Your task to perform on an android device: turn off priority inbox in the gmail app Image 0: 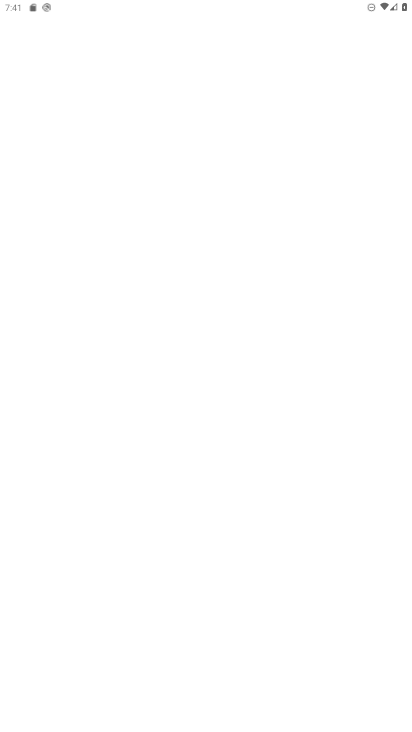
Step 0: drag from (227, 654) to (232, 291)
Your task to perform on an android device: turn off priority inbox in the gmail app Image 1: 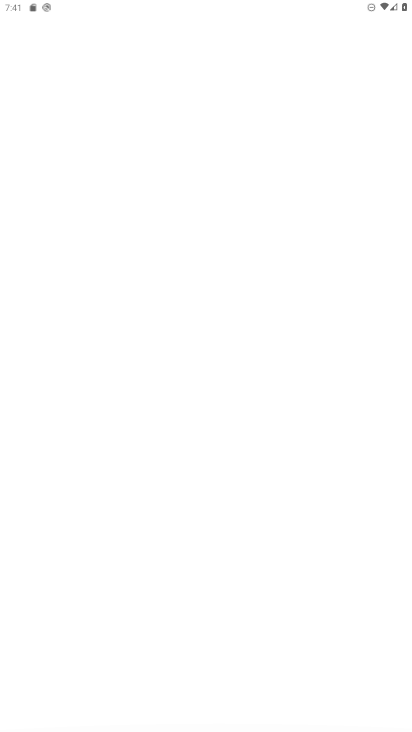
Step 1: press home button
Your task to perform on an android device: turn off priority inbox in the gmail app Image 2: 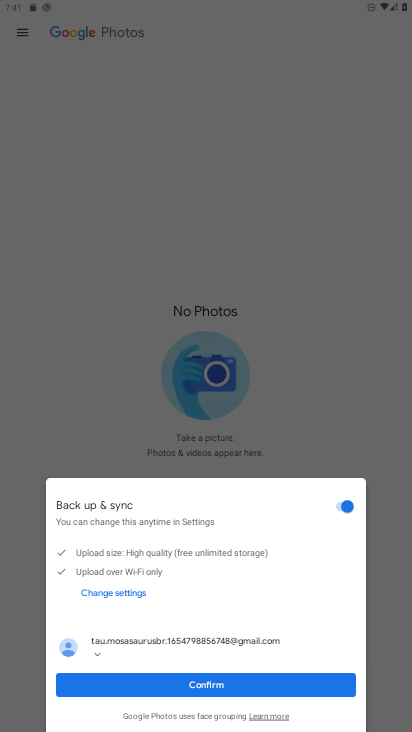
Step 2: click (267, 677)
Your task to perform on an android device: turn off priority inbox in the gmail app Image 3: 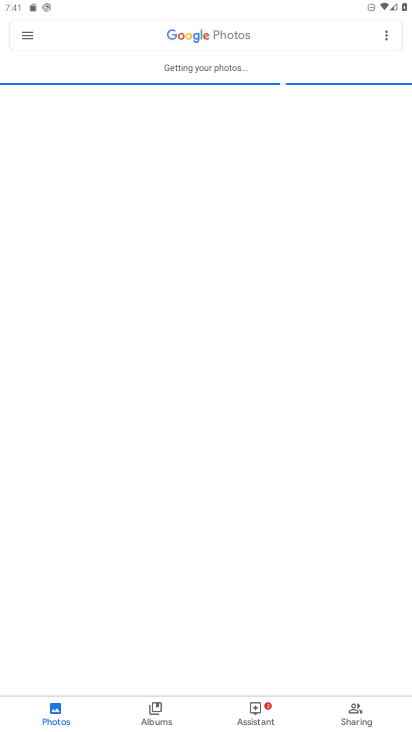
Step 3: press home button
Your task to perform on an android device: turn off priority inbox in the gmail app Image 4: 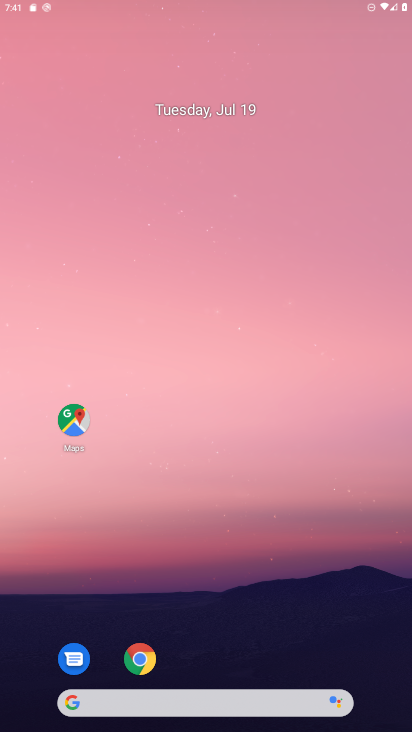
Step 4: drag from (237, 625) to (248, 96)
Your task to perform on an android device: turn off priority inbox in the gmail app Image 5: 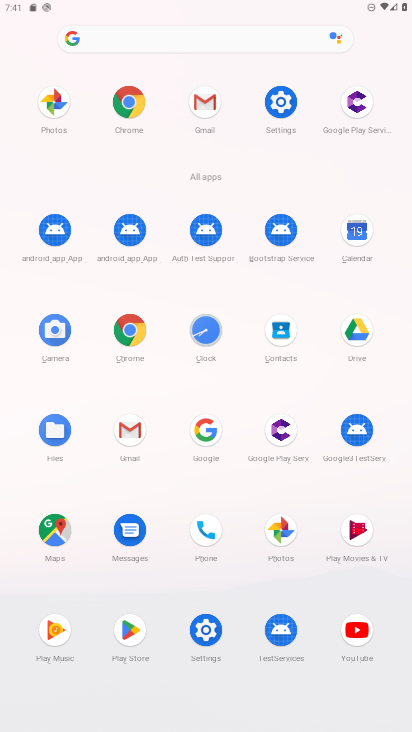
Step 5: click (125, 421)
Your task to perform on an android device: turn off priority inbox in the gmail app Image 6: 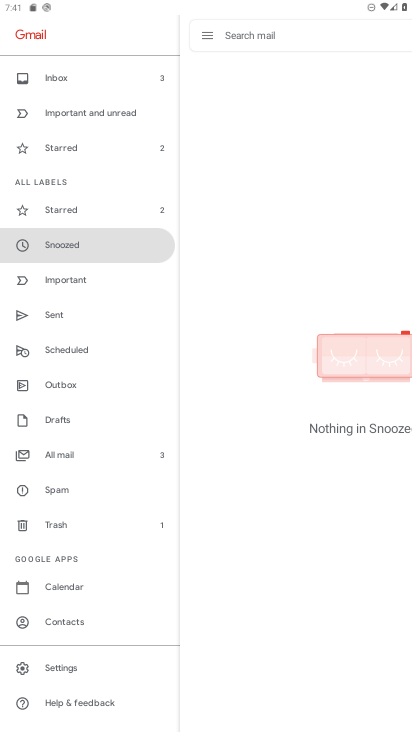
Step 6: click (63, 667)
Your task to perform on an android device: turn off priority inbox in the gmail app Image 7: 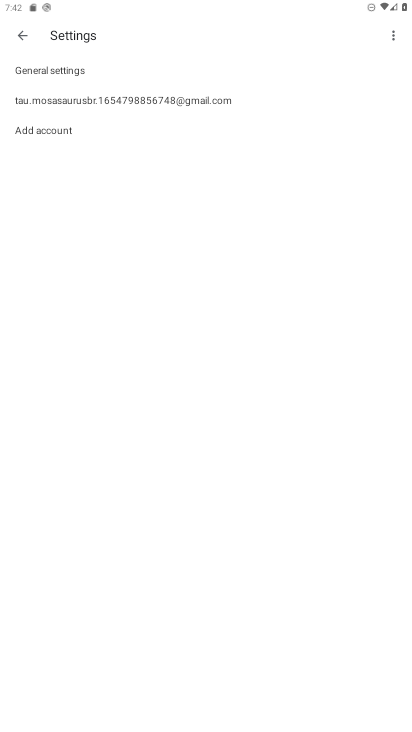
Step 7: click (57, 90)
Your task to perform on an android device: turn off priority inbox in the gmail app Image 8: 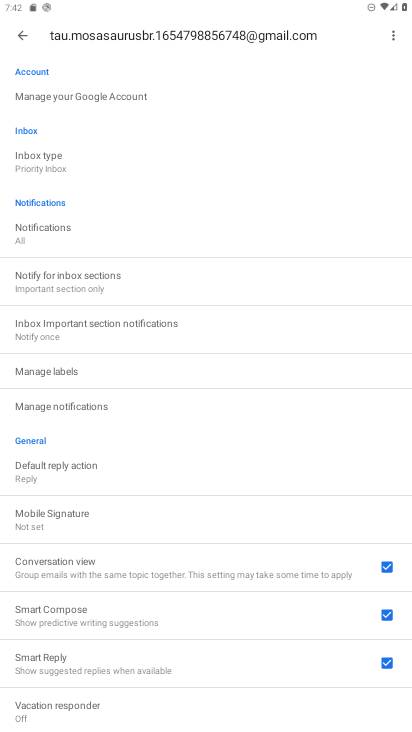
Step 8: click (58, 164)
Your task to perform on an android device: turn off priority inbox in the gmail app Image 9: 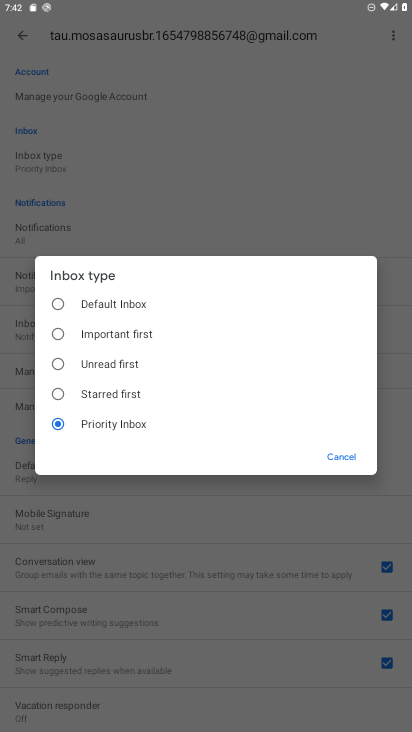
Step 9: click (117, 298)
Your task to perform on an android device: turn off priority inbox in the gmail app Image 10: 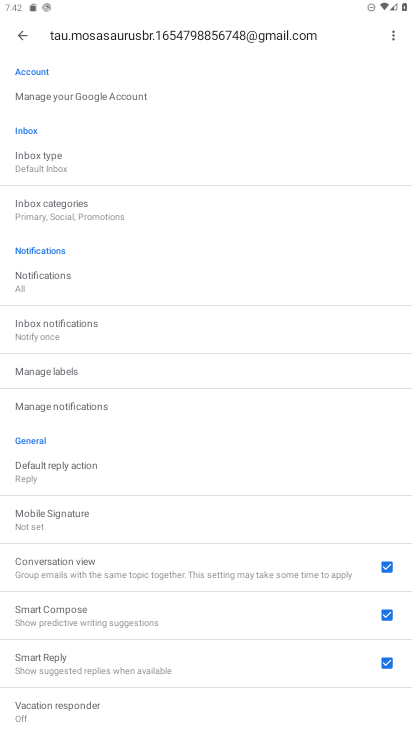
Step 10: task complete